Your task to perform on an android device: What's the weather? Image 0: 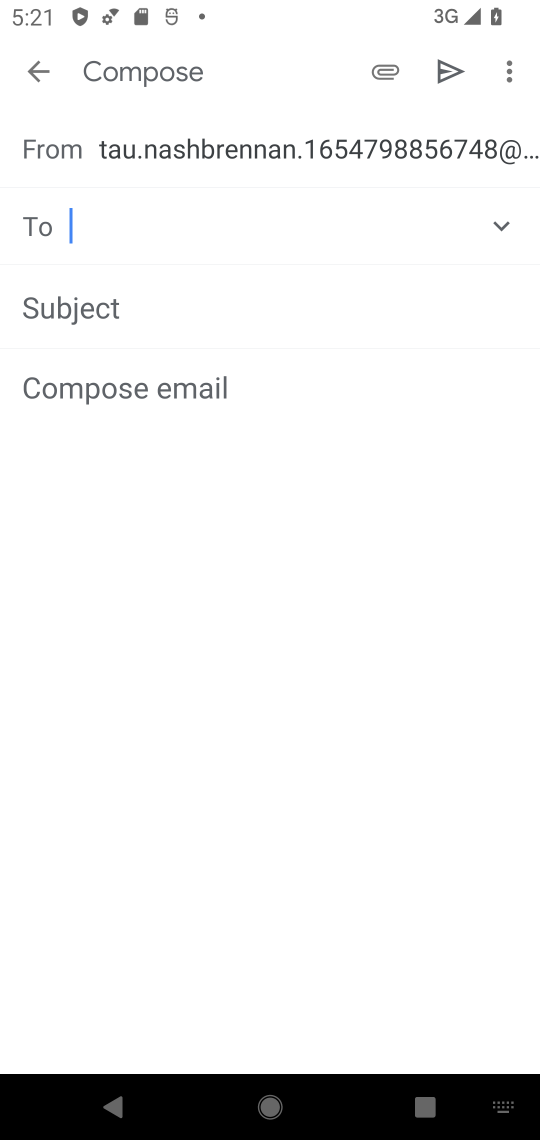
Step 0: press home button
Your task to perform on an android device: What's the weather? Image 1: 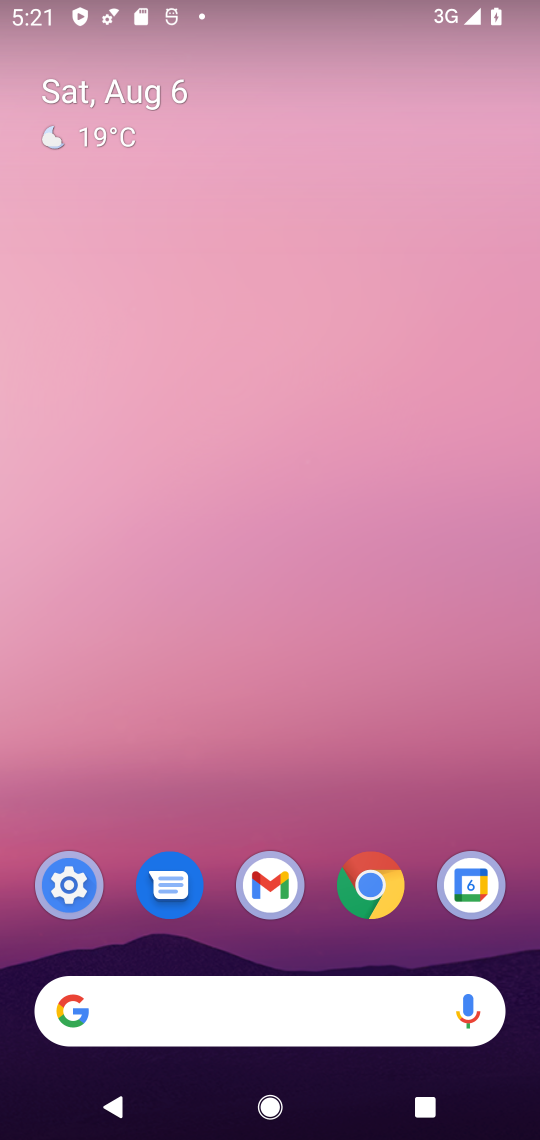
Step 1: drag from (502, 836) to (290, 86)
Your task to perform on an android device: What's the weather? Image 2: 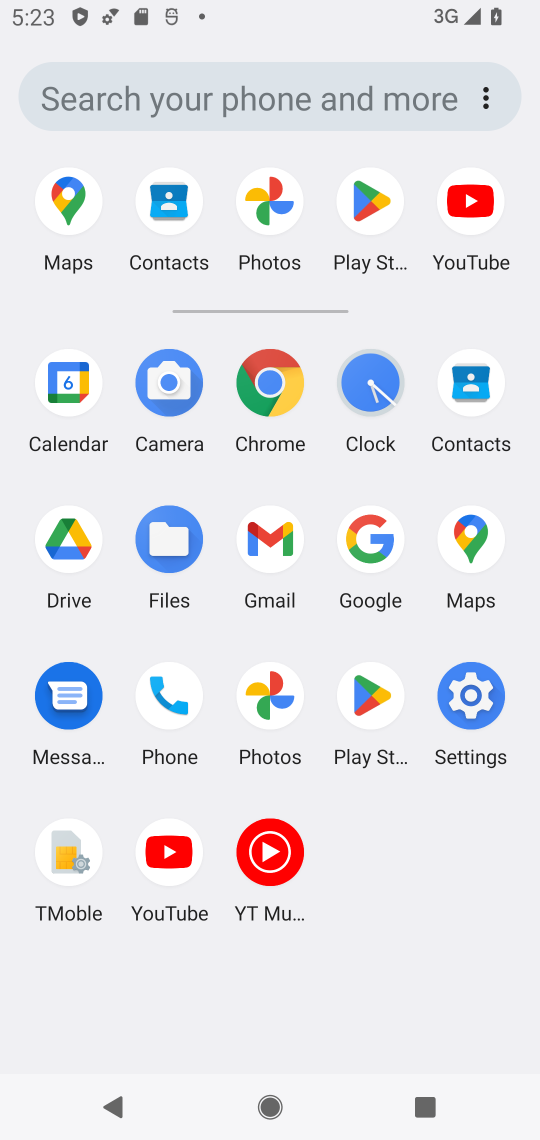
Step 2: click (367, 539)
Your task to perform on an android device: What's the weather? Image 3: 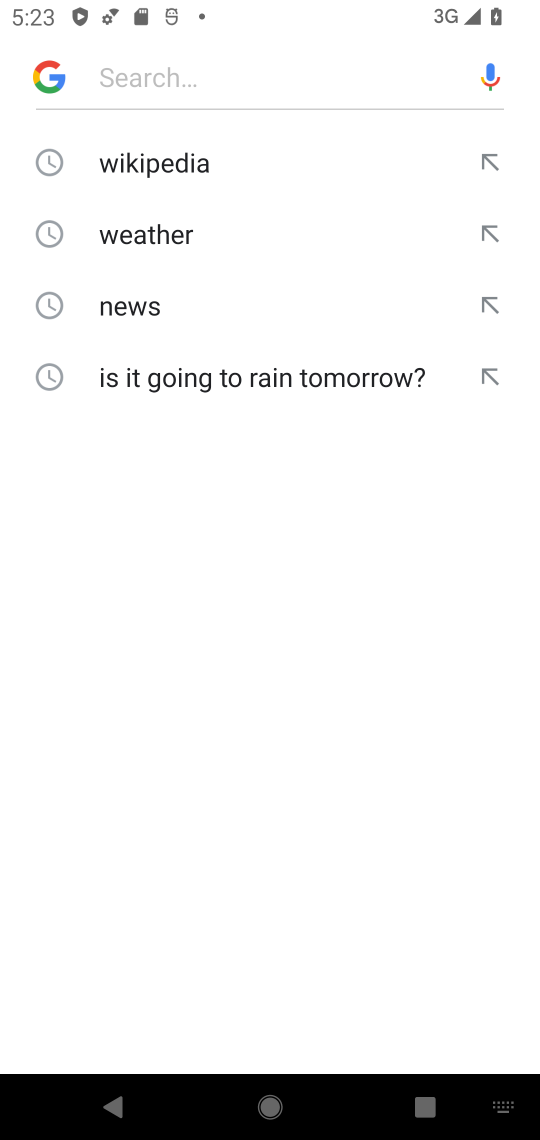
Step 3: click (156, 238)
Your task to perform on an android device: What's the weather? Image 4: 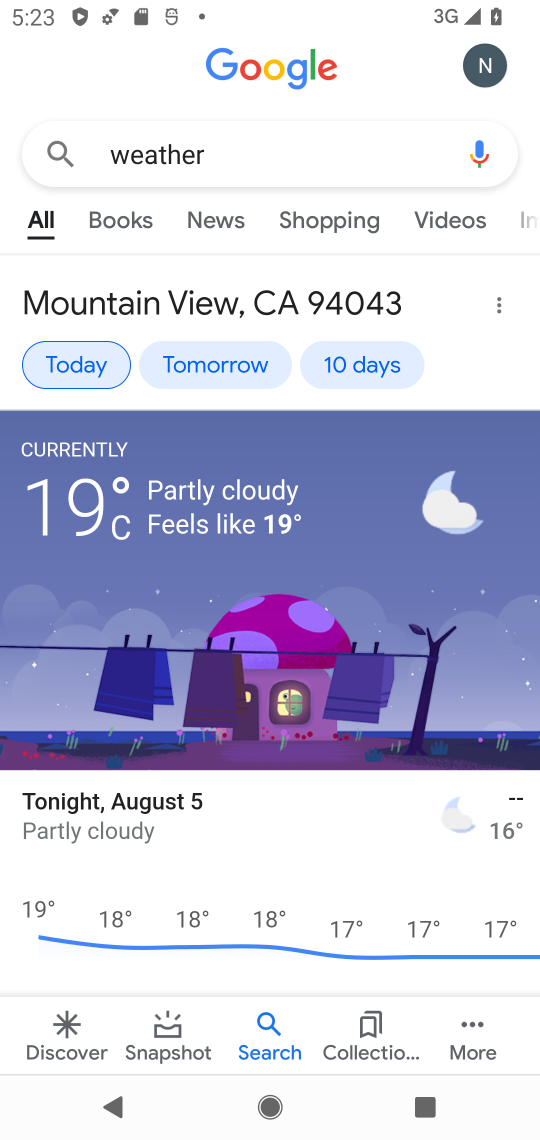
Step 4: task complete